Your task to perform on an android device: Show me popular games on the Play Store Image 0: 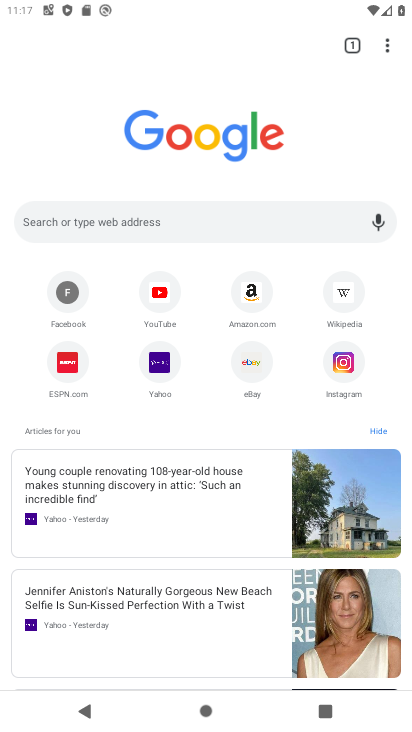
Step 0: press home button
Your task to perform on an android device: Show me popular games on the Play Store Image 1: 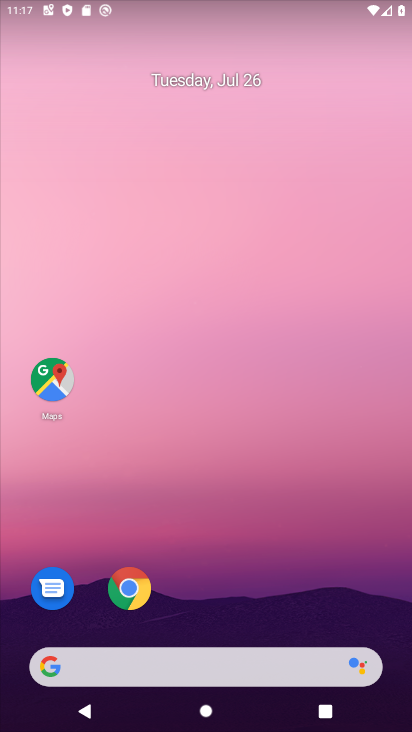
Step 1: drag from (197, 606) to (244, 15)
Your task to perform on an android device: Show me popular games on the Play Store Image 2: 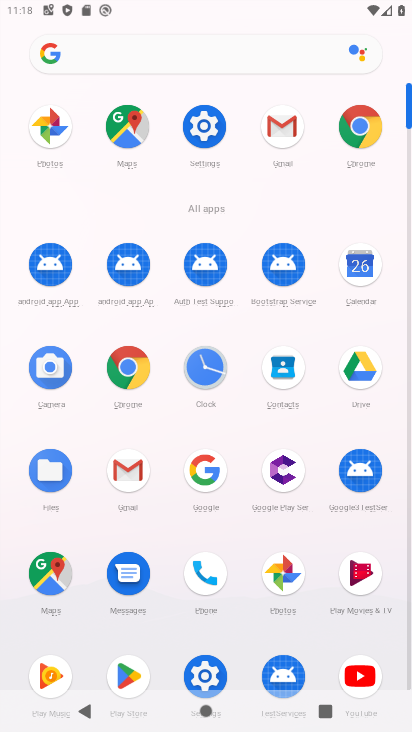
Step 2: drag from (237, 510) to (254, 137)
Your task to perform on an android device: Show me popular games on the Play Store Image 3: 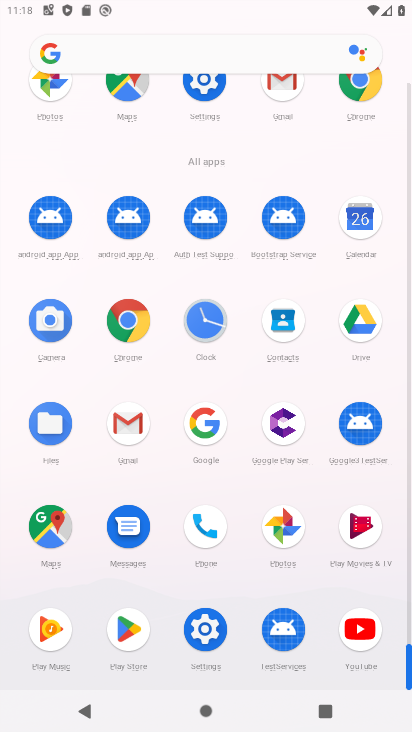
Step 3: click (127, 630)
Your task to perform on an android device: Show me popular games on the Play Store Image 4: 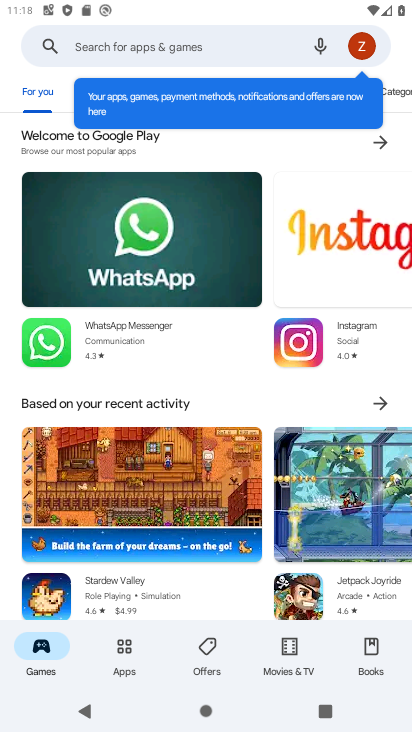
Step 4: click (77, 40)
Your task to perform on an android device: Show me popular games on the Play Store Image 5: 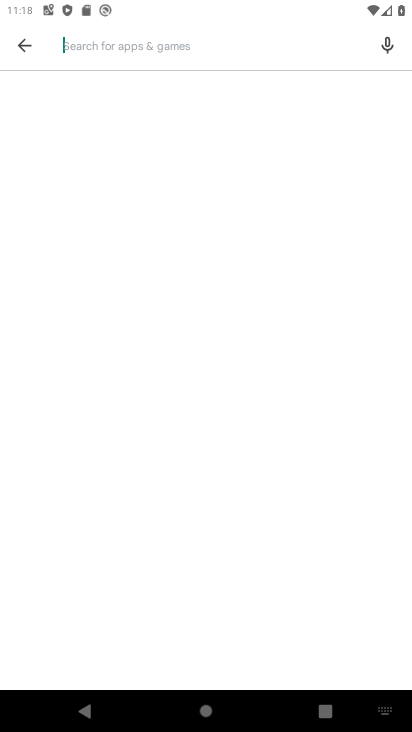
Step 5: type " popular games "
Your task to perform on an android device: Show me popular games on the Play Store Image 6: 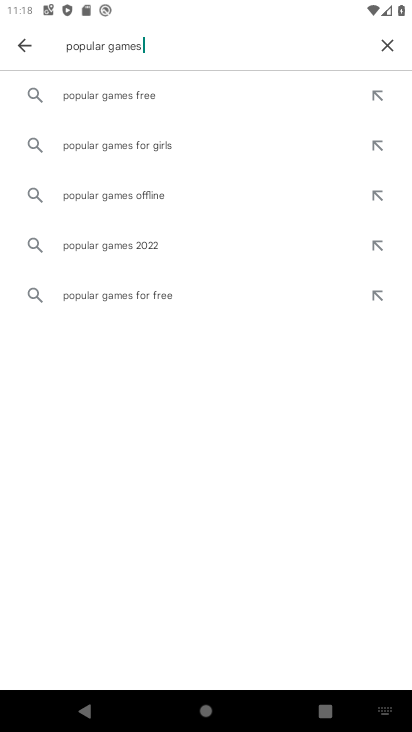
Step 6: click (109, 95)
Your task to perform on an android device: Show me popular games on the Play Store Image 7: 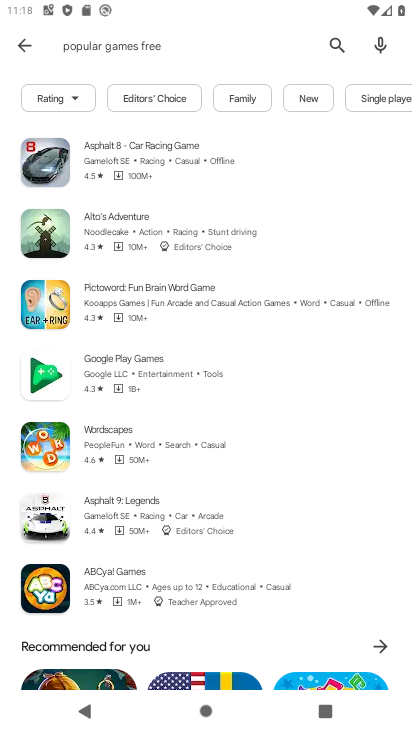
Step 7: task complete